Your task to perform on an android device: Search for a new desk on IKEA. Image 0: 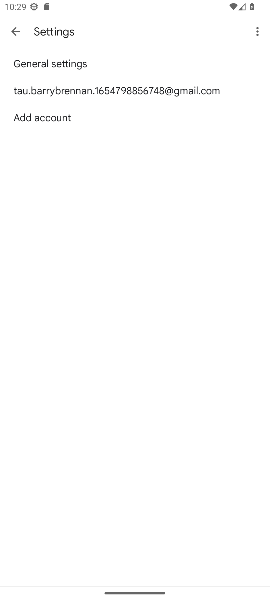
Step 0: press home button
Your task to perform on an android device: Search for a new desk on IKEA. Image 1: 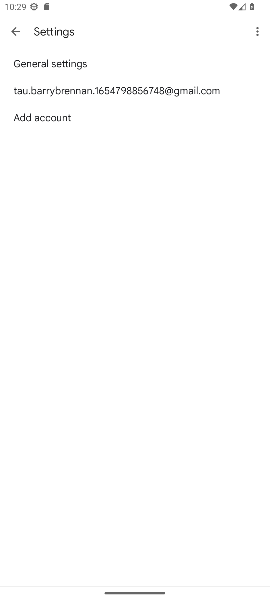
Step 1: press home button
Your task to perform on an android device: Search for a new desk on IKEA. Image 2: 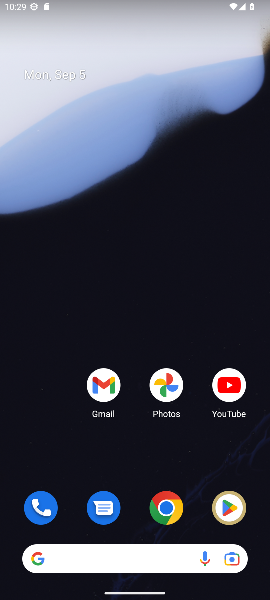
Step 2: drag from (127, 486) to (225, 13)
Your task to perform on an android device: Search for a new desk on IKEA. Image 3: 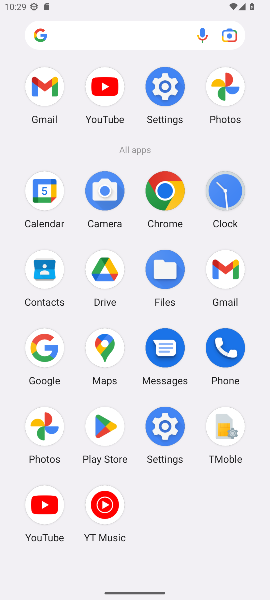
Step 3: click (157, 189)
Your task to perform on an android device: Search for a new desk on IKEA. Image 4: 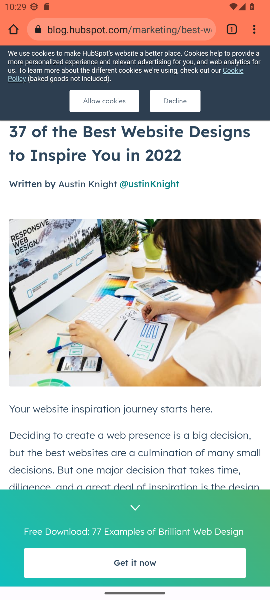
Step 4: click (183, 29)
Your task to perform on an android device: Search for a new desk on IKEA. Image 5: 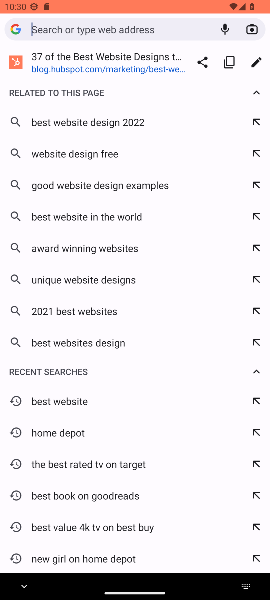
Step 5: type "New desk on IKEA"
Your task to perform on an android device: Search for a new desk on IKEA. Image 6: 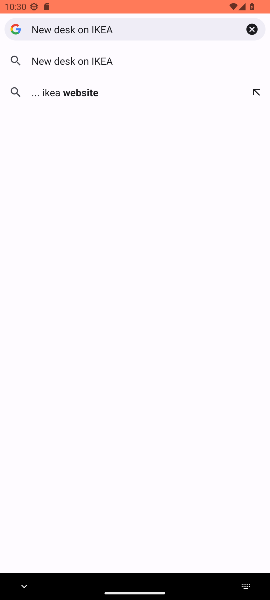
Step 6: press enter
Your task to perform on an android device: Search for a new desk on IKEA. Image 7: 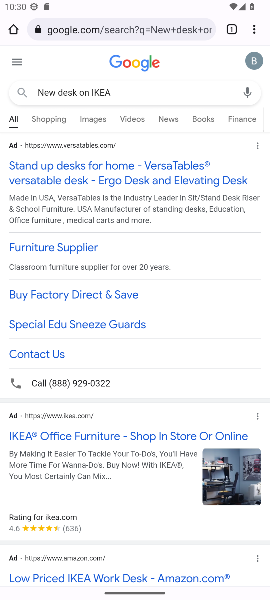
Step 7: drag from (138, 302) to (159, 96)
Your task to perform on an android device: Search for a new desk on IKEA. Image 8: 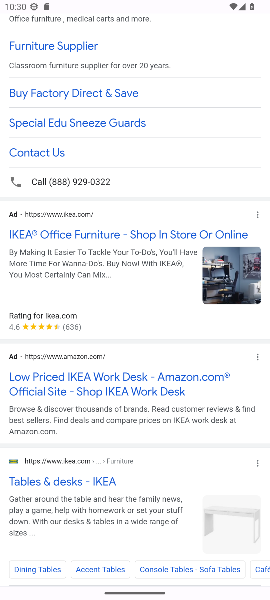
Step 8: click (92, 485)
Your task to perform on an android device: Search for a new desk on IKEA. Image 9: 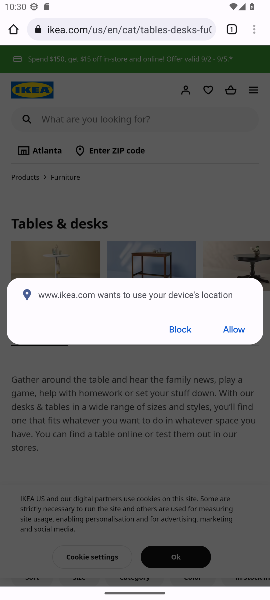
Step 9: click (165, 321)
Your task to perform on an android device: Search for a new desk on IKEA. Image 10: 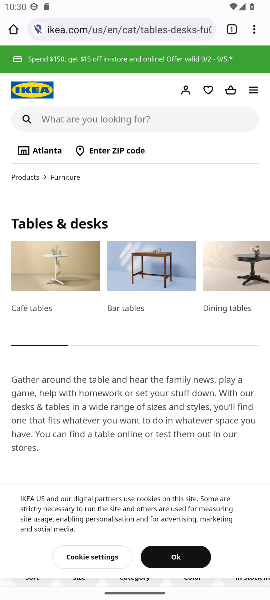
Step 10: task complete